Your task to perform on an android device: Open Google Chrome Image 0: 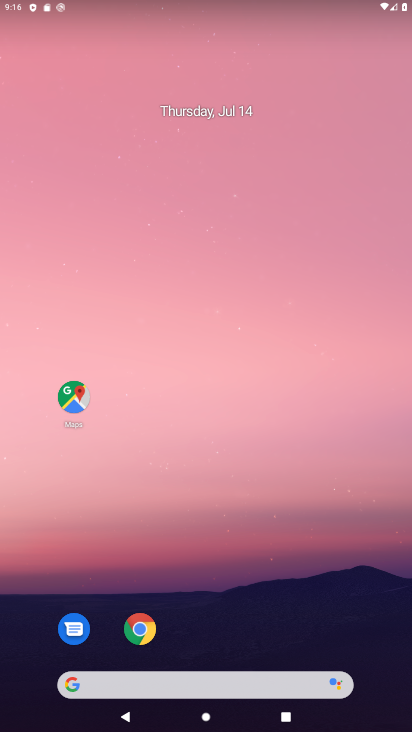
Step 0: drag from (252, 646) to (242, 45)
Your task to perform on an android device: Open Google Chrome Image 1: 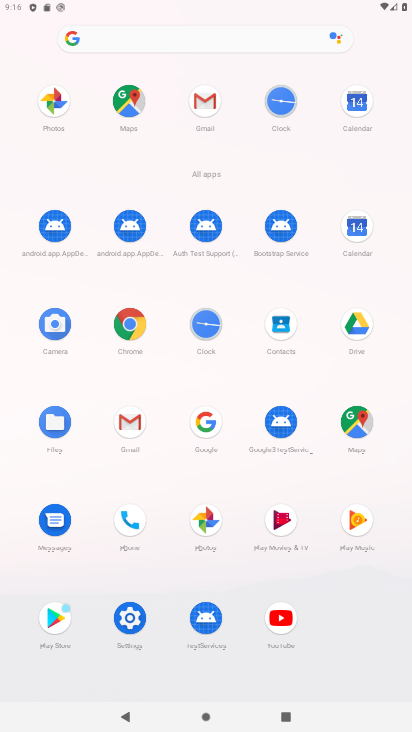
Step 1: click (130, 325)
Your task to perform on an android device: Open Google Chrome Image 2: 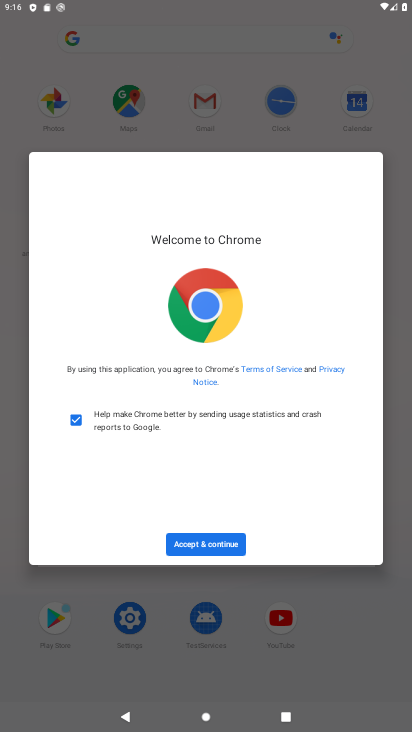
Step 2: click (200, 545)
Your task to perform on an android device: Open Google Chrome Image 3: 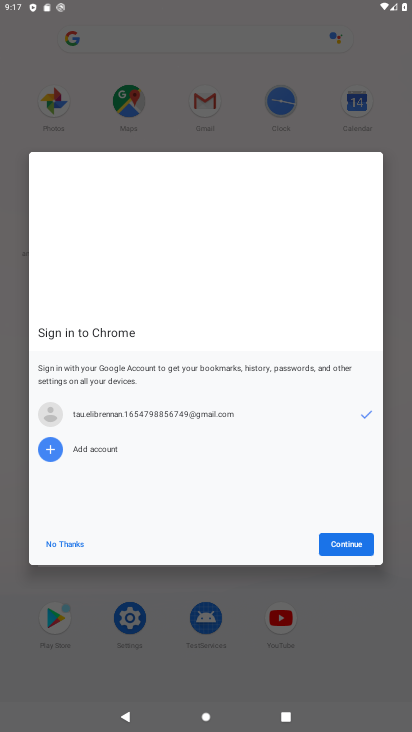
Step 3: click (335, 542)
Your task to perform on an android device: Open Google Chrome Image 4: 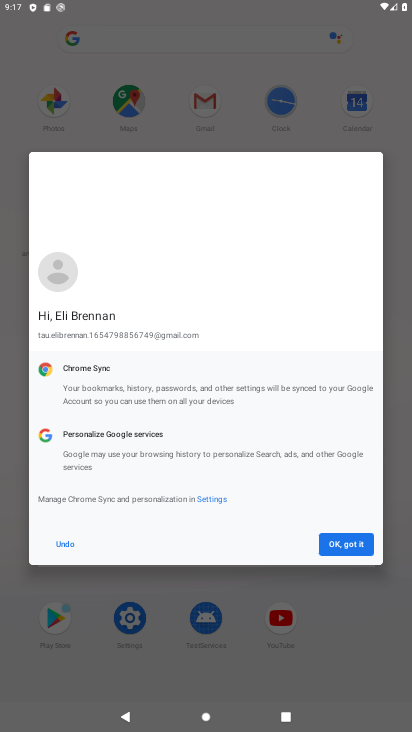
Step 4: click (335, 542)
Your task to perform on an android device: Open Google Chrome Image 5: 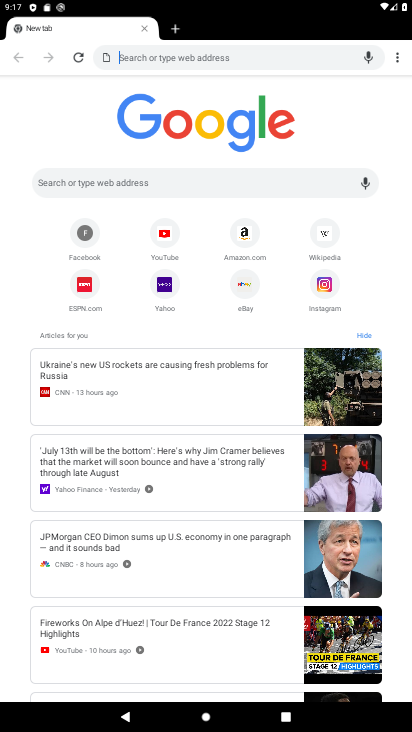
Step 5: task complete